Your task to perform on an android device: Open privacy settings Image 0: 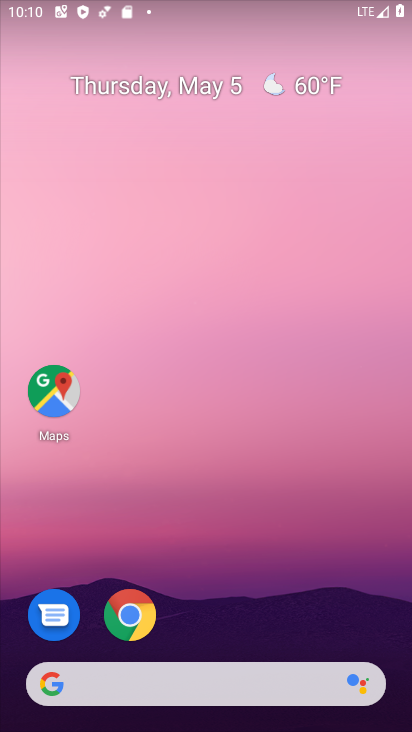
Step 0: click (130, 611)
Your task to perform on an android device: Open privacy settings Image 1: 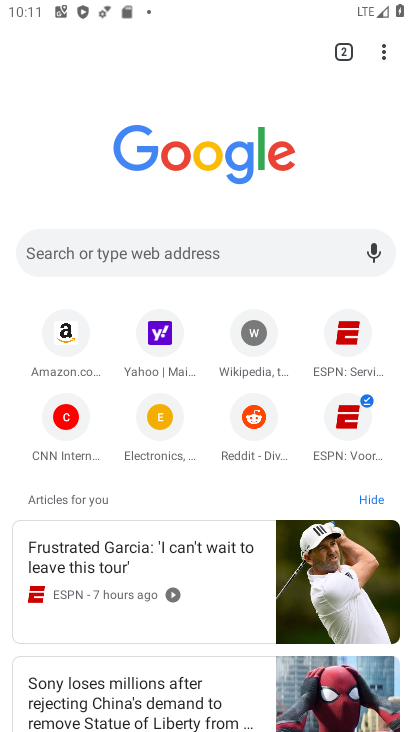
Step 1: click (377, 49)
Your task to perform on an android device: Open privacy settings Image 2: 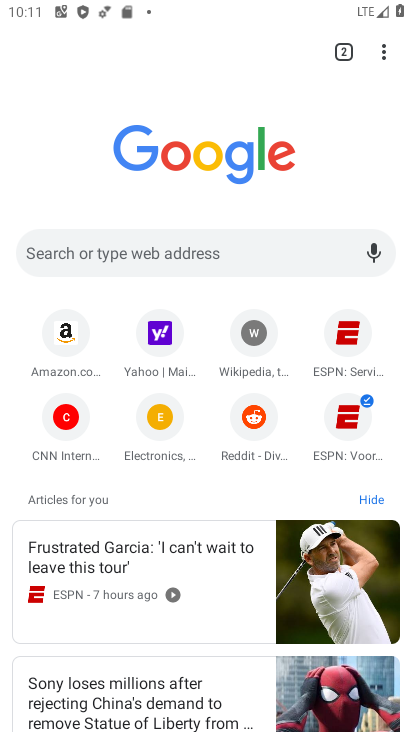
Step 2: click (370, 52)
Your task to perform on an android device: Open privacy settings Image 3: 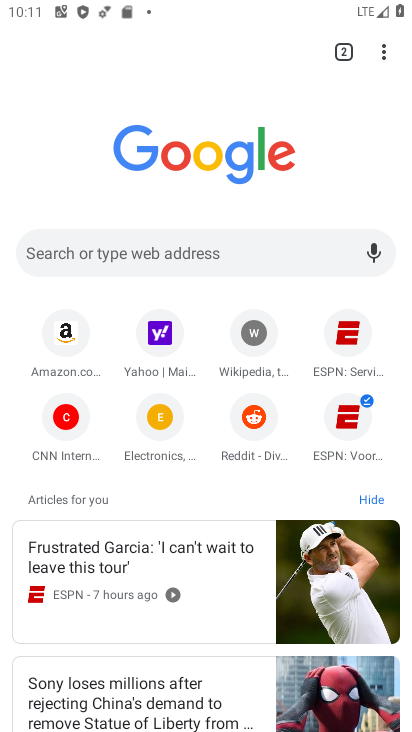
Step 3: click (381, 49)
Your task to perform on an android device: Open privacy settings Image 4: 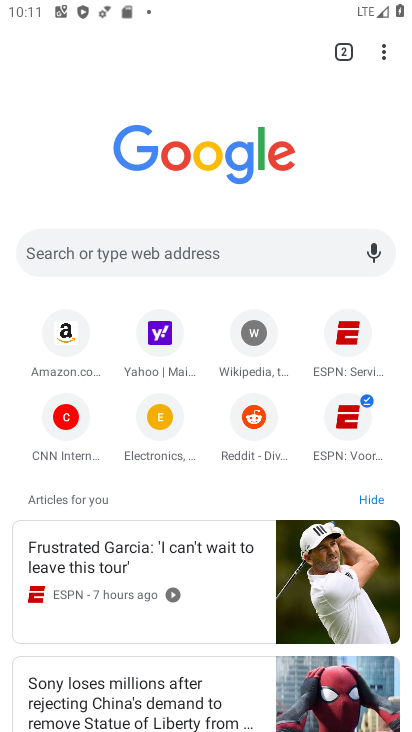
Step 4: click (382, 49)
Your task to perform on an android device: Open privacy settings Image 5: 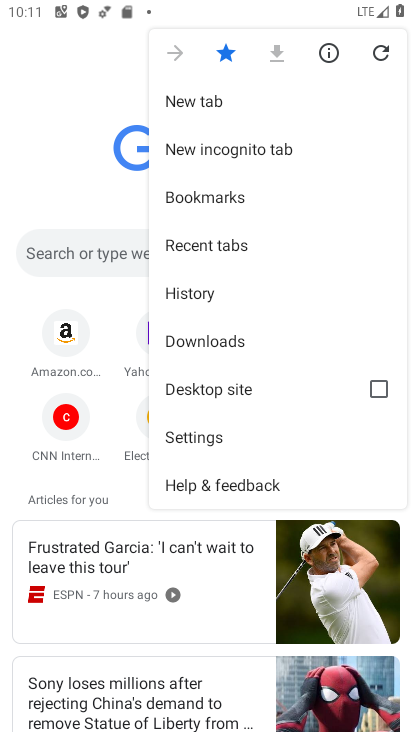
Step 5: click (236, 451)
Your task to perform on an android device: Open privacy settings Image 6: 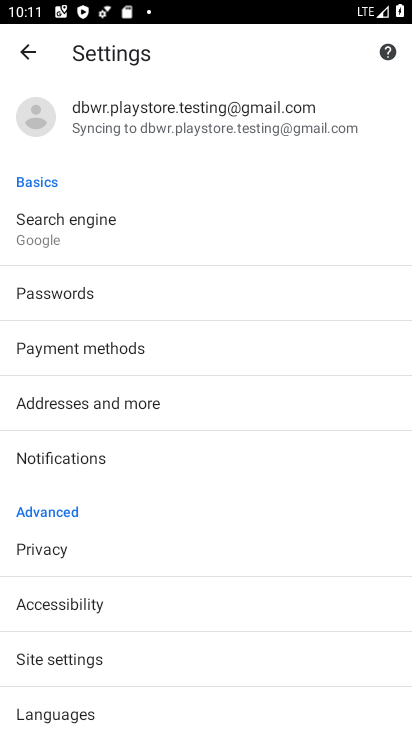
Step 6: drag from (138, 619) to (124, 453)
Your task to perform on an android device: Open privacy settings Image 7: 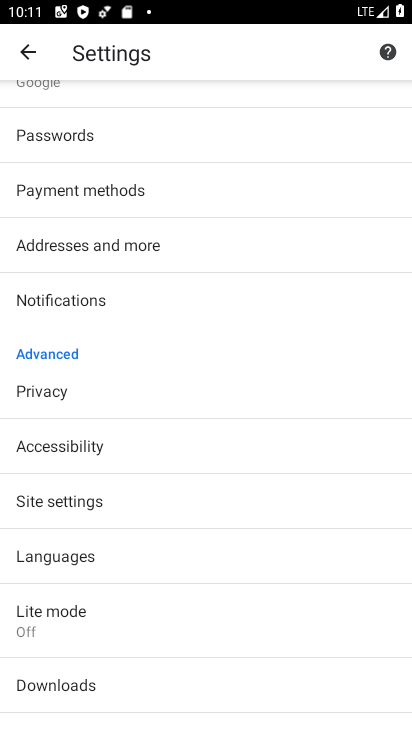
Step 7: click (60, 391)
Your task to perform on an android device: Open privacy settings Image 8: 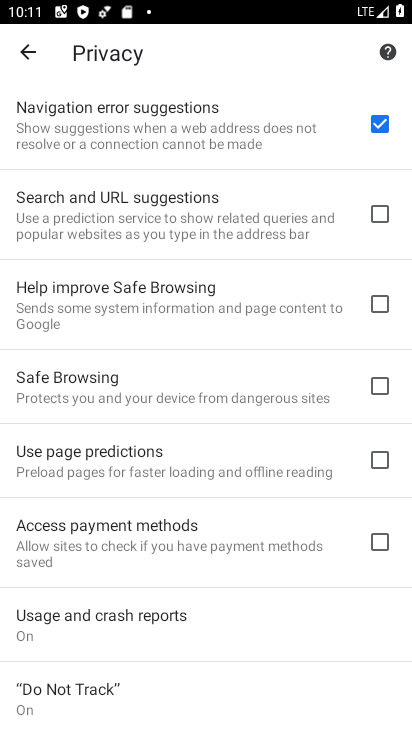
Step 8: task complete